Your task to perform on an android device: Open the calendar and show me this week's events? Image 0: 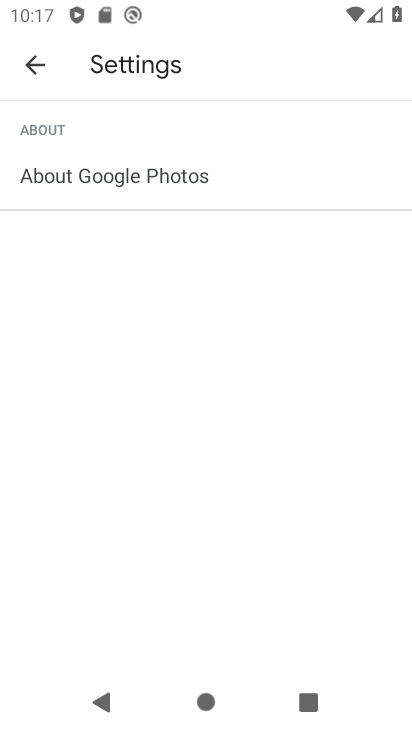
Step 0: press back button
Your task to perform on an android device: Open the calendar and show me this week's events? Image 1: 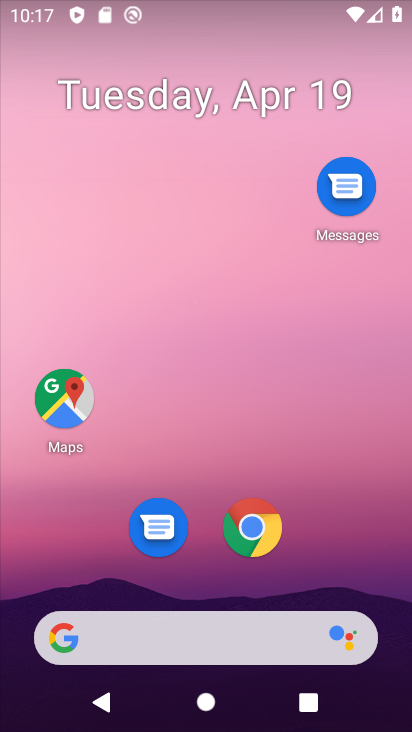
Step 1: drag from (332, 424) to (331, 179)
Your task to perform on an android device: Open the calendar and show me this week's events? Image 2: 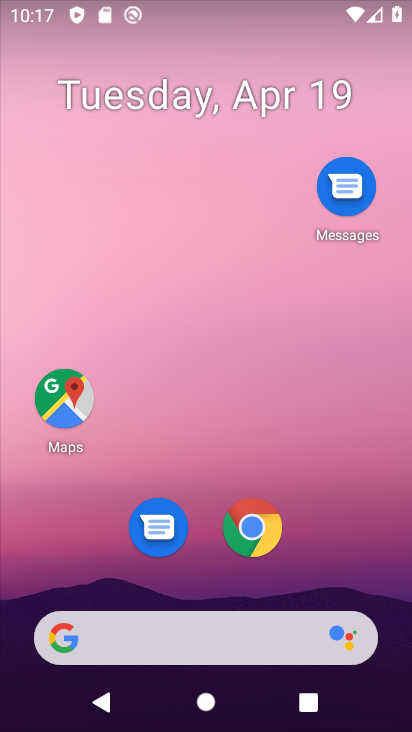
Step 2: drag from (286, 418) to (260, 145)
Your task to perform on an android device: Open the calendar and show me this week's events? Image 3: 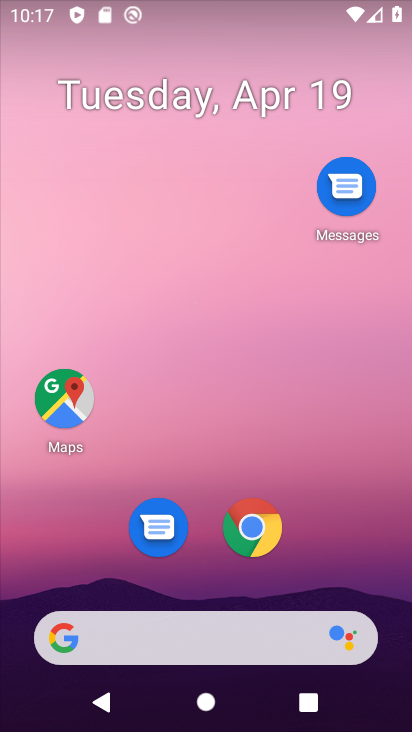
Step 3: drag from (308, 550) to (276, 73)
Your task to perform on an android device: Open the calendar and show me this week's events? Image 4: 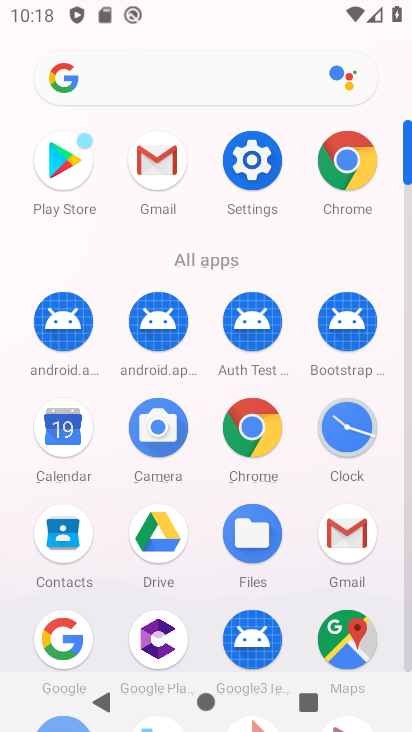
Step 4: click (61, 449)
Your task to perform on an android device: Open the calendar and show me this week's events? Image 5: 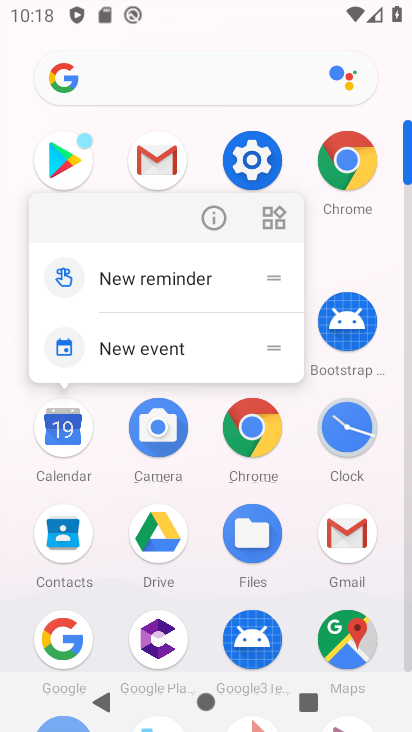
Step 5: click (61, 448)
Your task to perform on an android device: Open the calendar and show me this week's events? Image 6: 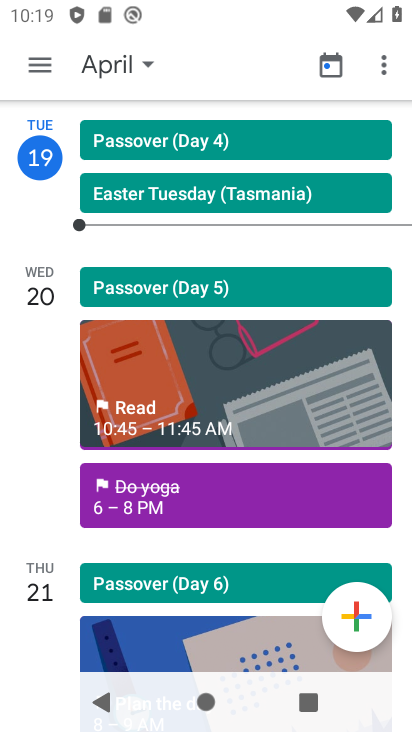
Step 6: click (137, 84)
Your task to perform on an android device: Open the calendar and show me this week's events? Image 7: 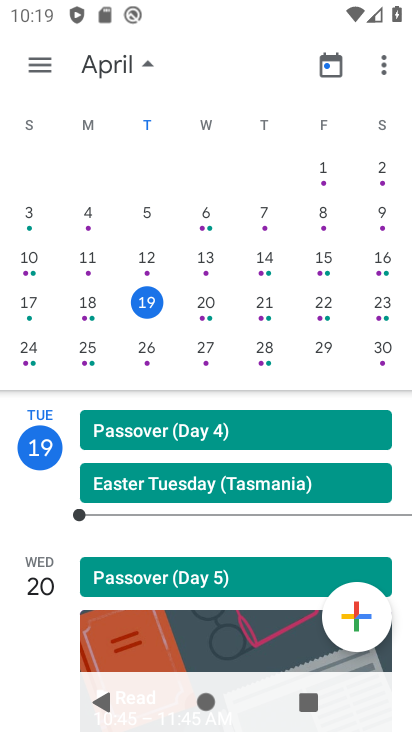
Step 7: click (214, 304)
Your task to perform on an android device: Open the calendar and show me this week's events? Image 8: 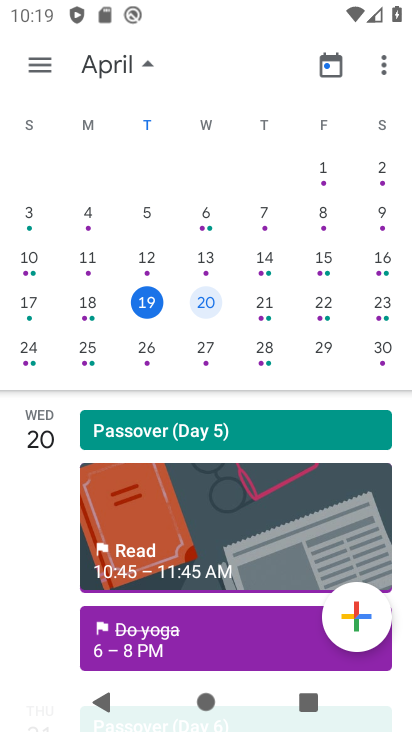
Step 8: click (263, 318)
Your task to perform on an android device: Open the calendar and show me this week's events? Image 9: 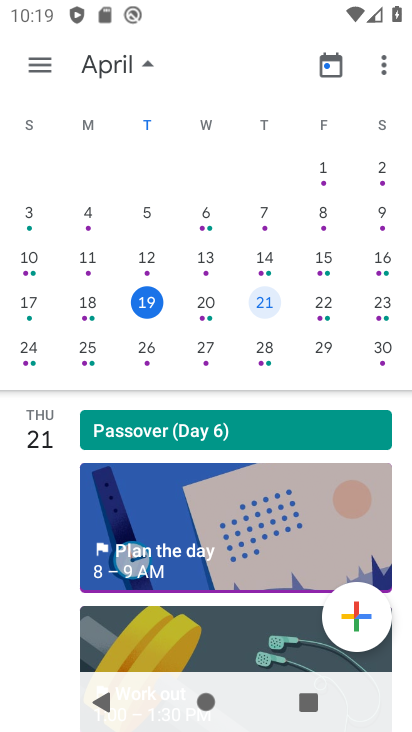
Step 9: click (324, 309)
Your task to perform on an android device: Open the calendar and show me this week's events? Image 10: 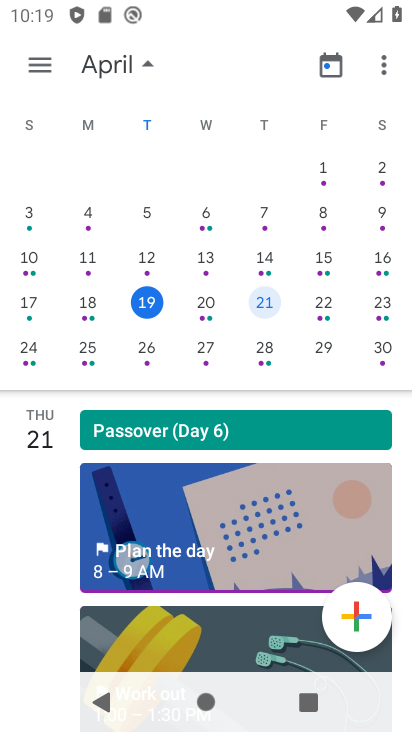
Step 10: click (382, 311)
Your task to perform on an android device: Open the calendar and show me this week's events? Image 11: 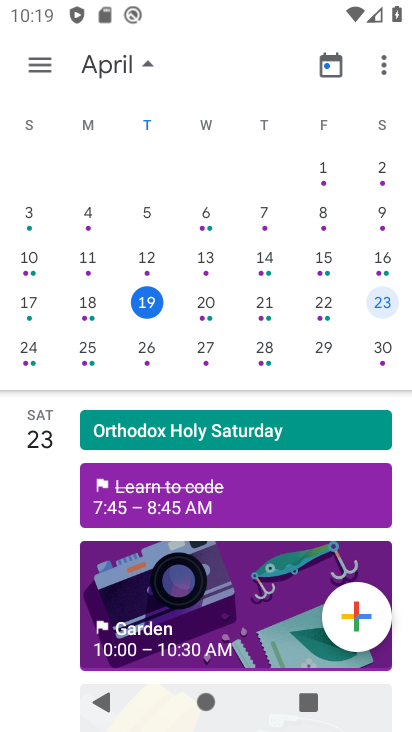
Step 11: task complete